Your task to perform on an android device: change text size in settings app Image 0: 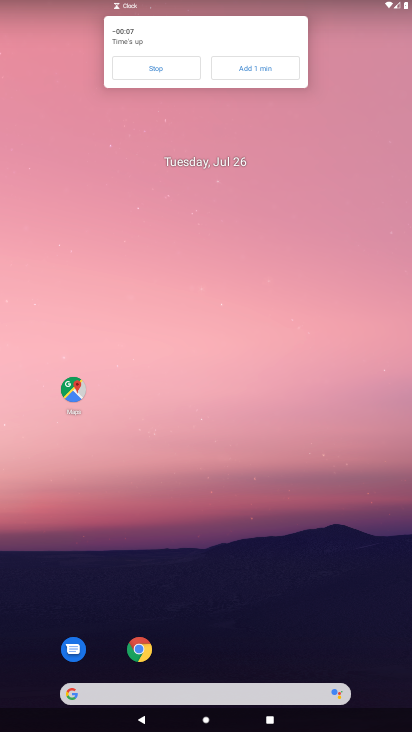
Step 0: click (173, 66)
Your task to perform on an android device: change text size in settings app Image 1: 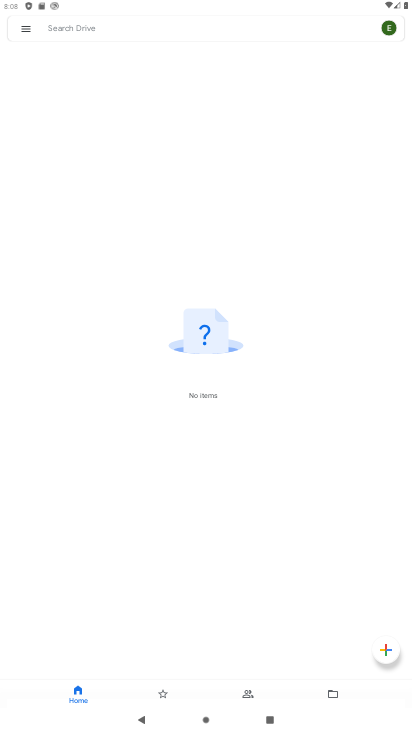
Step 1: press home button
Your task to perform on an android device: change text size in settings app Image 2: 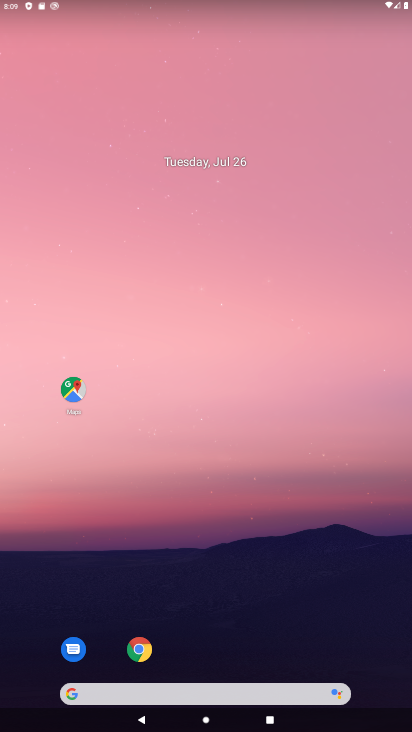
Step 2: drag from (194, 649) to (228, 60)
Your task to perform on an android device: change text size in settings app Image 3: 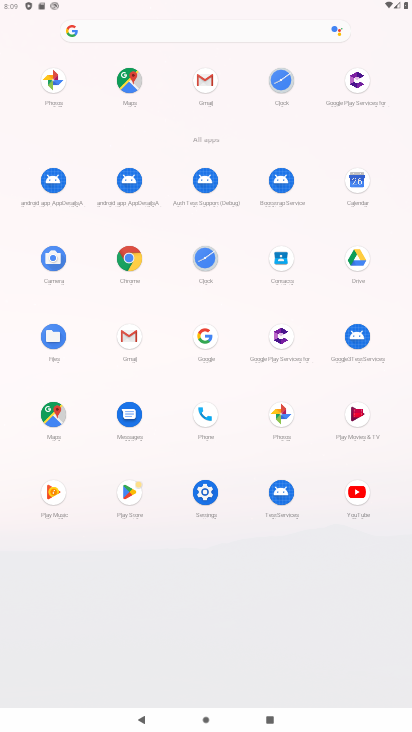
Step 3: click (199, 485)
Your task to perform on an android device: change text size in settings app Image 4: 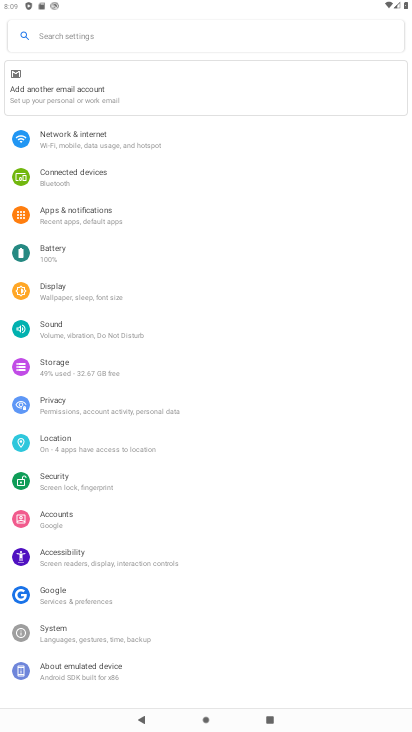
Step 4: click (110, 303)
Your task to perform on an android device: change text size in settings app Image 5: 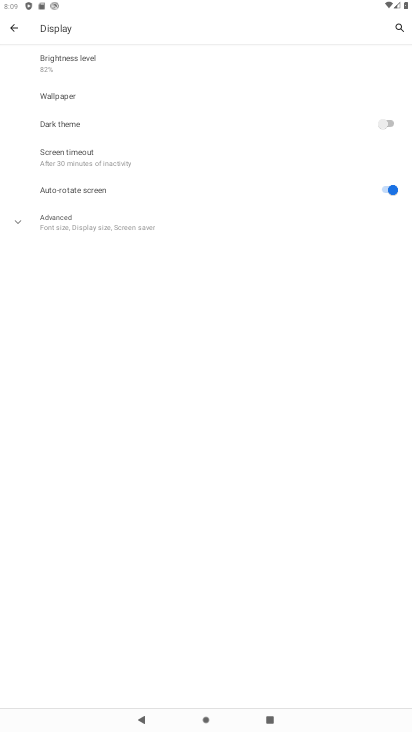
Step 5: click (102, 228)
Your task to perform on an android device: change text size in settings app Image 6: 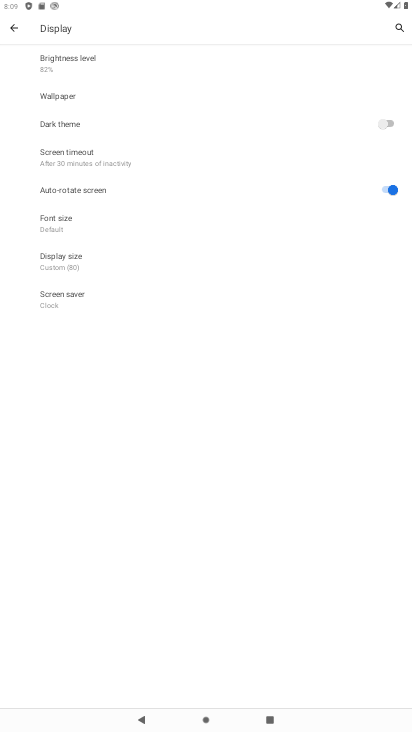
Step 6: click (102, 228)
Your task to perform on an android device: change text size in settings app Image 7: 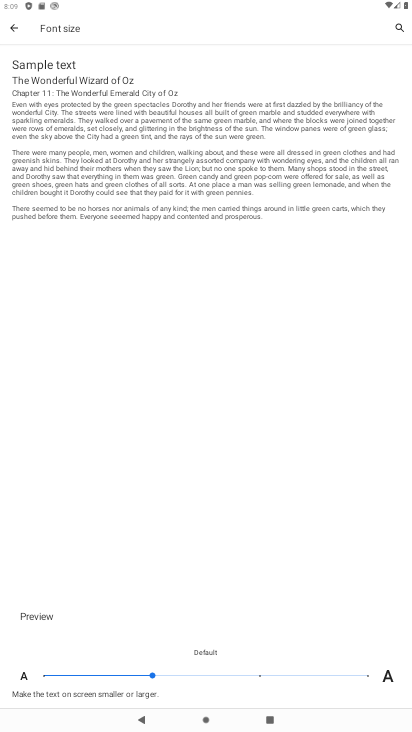
Step 7: click (46, 674)
Your task to perform on an android device: change text size in settings app Image 8: 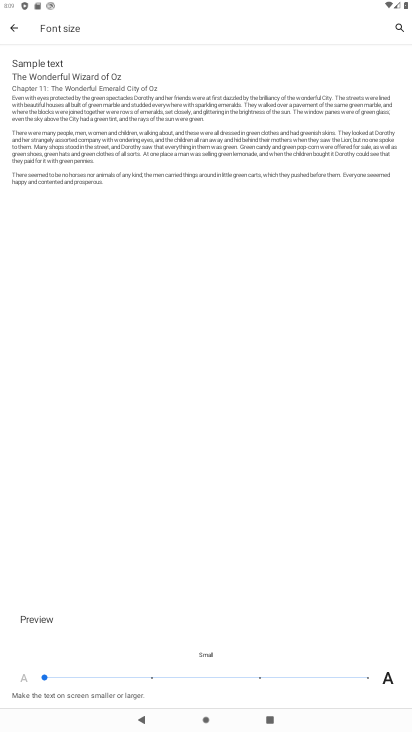
Step 8: task complete